Your task to perform on an android device: turn off smart reply in the gmail app Image 0: 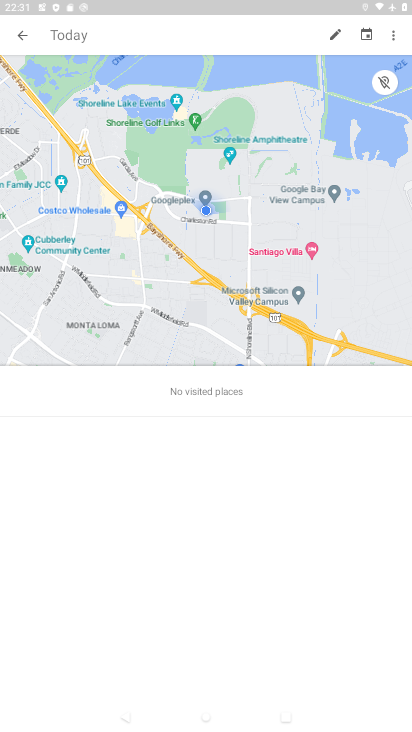
Step 0: press home button
Your task to perform on an android device: turn off smart reply in the gmail app Image 1: 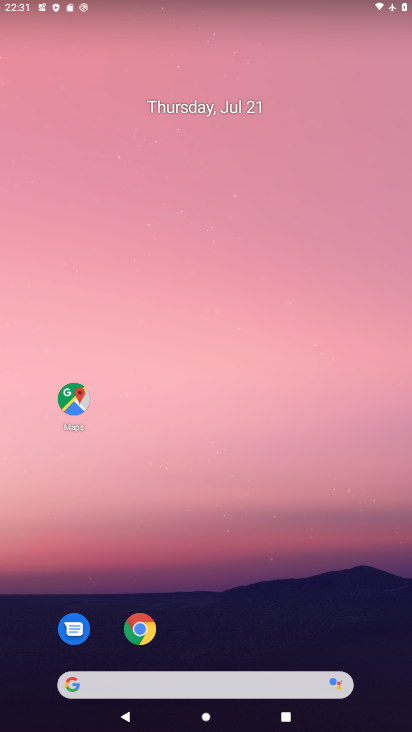
Step 1: drag from (196, 641) to (228, 78)
Your task to perform on an android device: turn off smart reply in the gmail app Image 2: 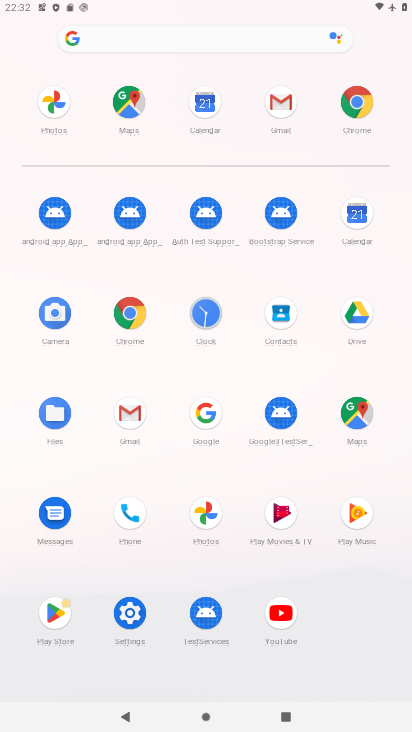
Step 2: click (274, 105)
Your task to perform on an android device: turn off smart reply in the gmail app Image 3: 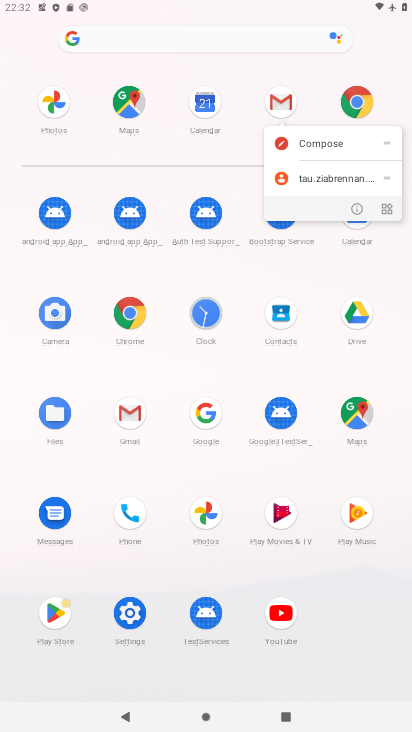
Step 3: click (274, 105)
Your task to perform on an android device: turn off smart reply in the gmail app Image 4: 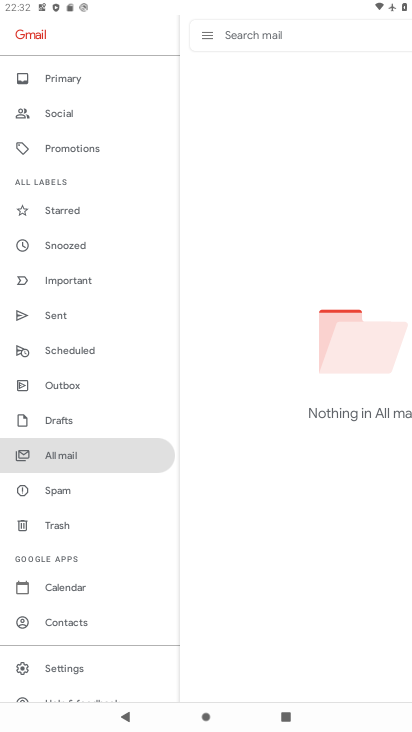
Step 4: click (68, 674)
Your task to perform on an android device: turn off smart reply in the gmail app Image 5: 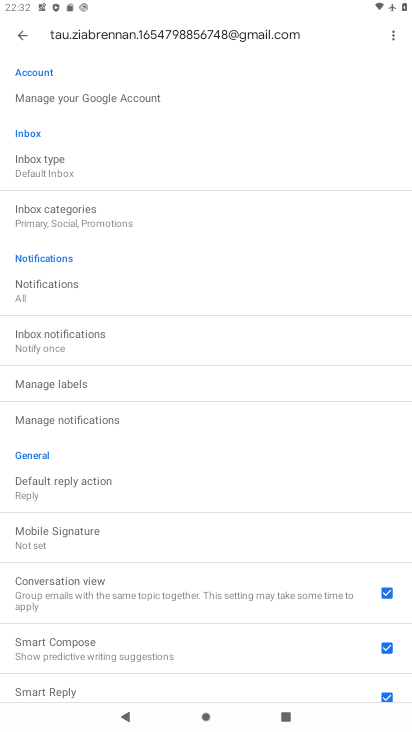
Step 5: drag from (204, 686) to (221, 333)
Your task to perform on an android device: turn off smart reply in the gmail app Image 6: 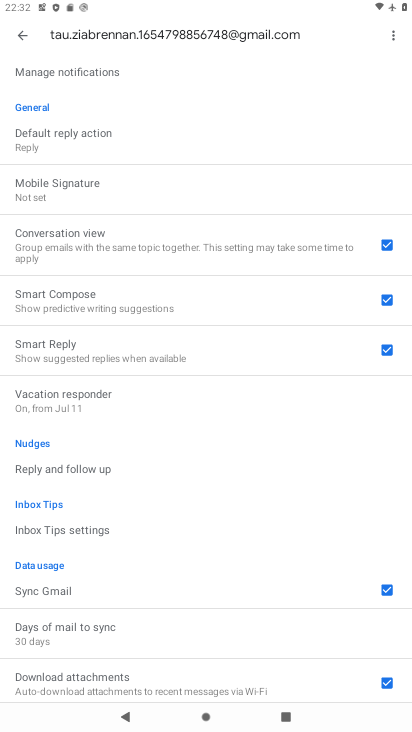
Step 6: click (385, 348)
Your task to perform on an android device: turn off smart reply in the gmail app Image 7: 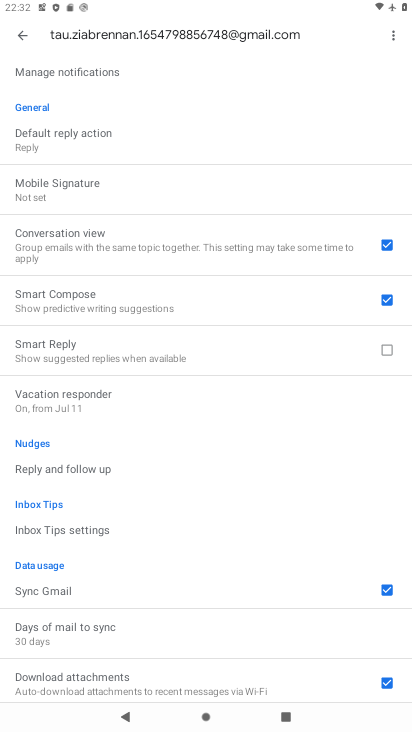
Step 7: task complete